Your task to perform on an android device: What's the weather going to be tomorrow? Image 0: 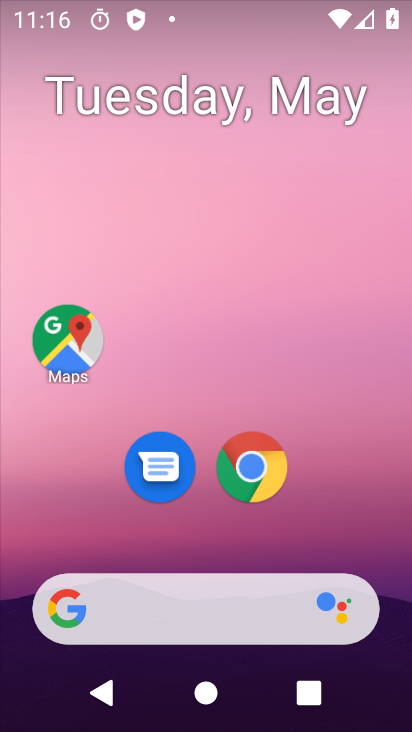
Step 0: drag from (405, 652) to (293, 40)
Your task to perform on an android device: What's the weather going to be tomorrow? Image 1: 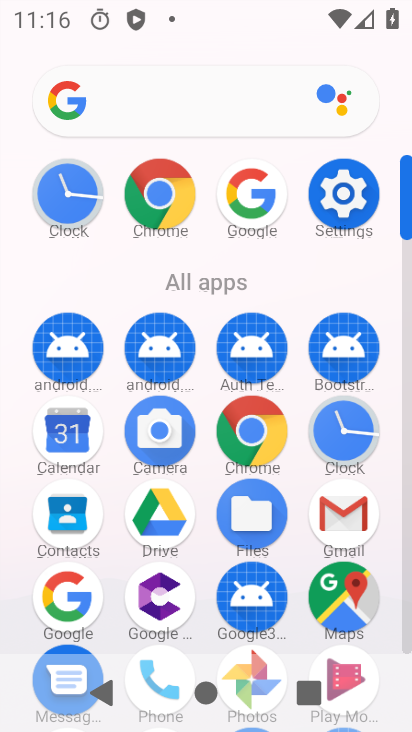
Step 1: drag from (9, 603) to (14, 285)
Your task to perform on an android device: What's the weather going to be tomorrow? Image 2: 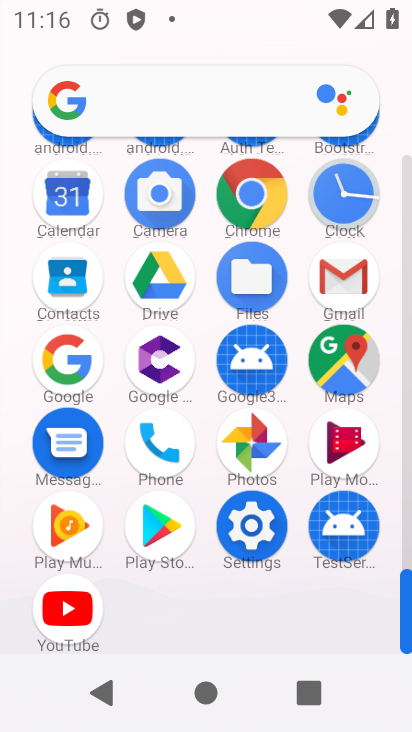
Step 2: click (255, 183)
Your task to perform on an android device: What's the weather going to be tomorrow? Image 3: 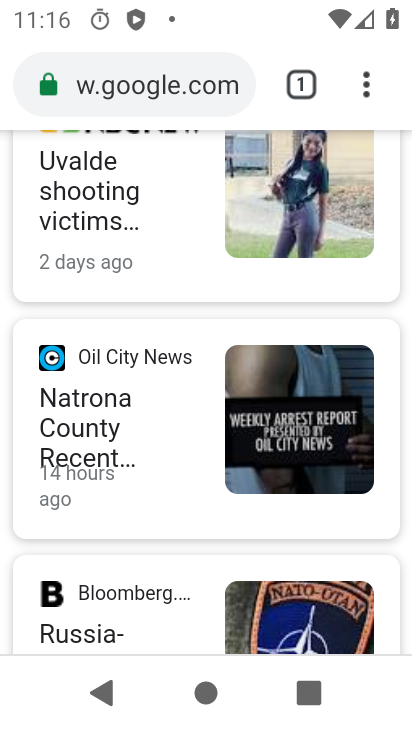
Step 3: click (164, 68)
Your task to perform on an android device: What's the weather going to be tomorrow? Image 4: 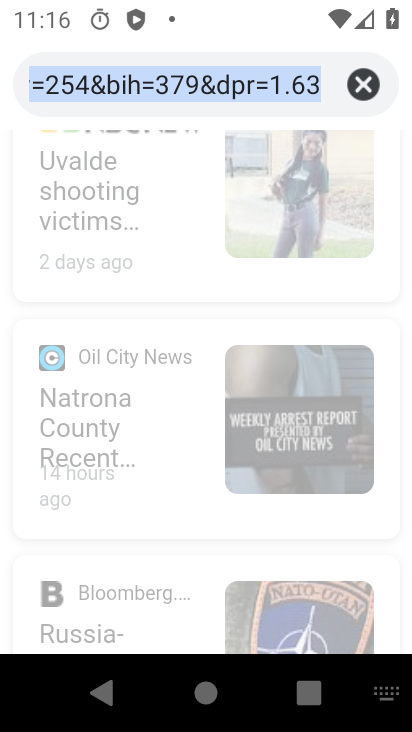
Step 4: click (363, 72)
Your task to perform on an android device: What's the weather going to be tomorrow? Image 5: 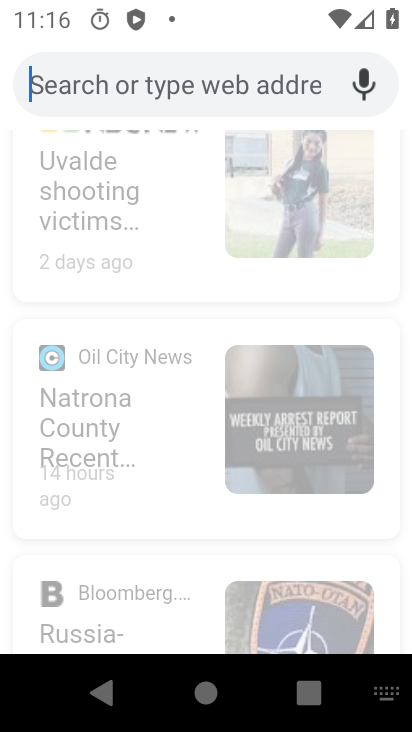
Step 5: type "What's the weather going to be tomorrow?"
Your task to perform on an android device: What's the weather going to be tomorrow? Image 6: 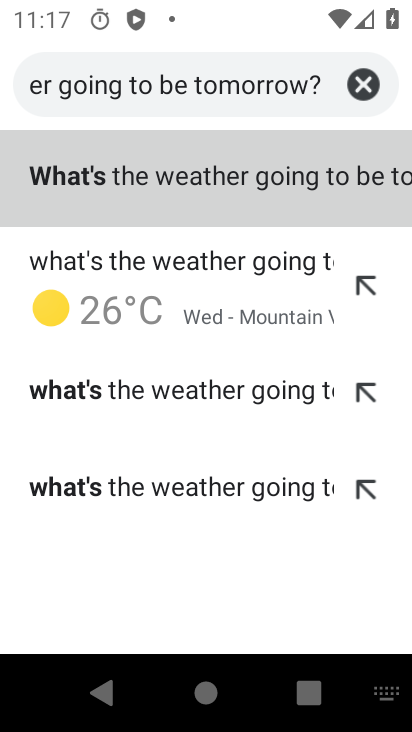
Step 6: click (33, 274)
Your task to perform on an android device: What's the weather going to be tomorrow? Image 7: 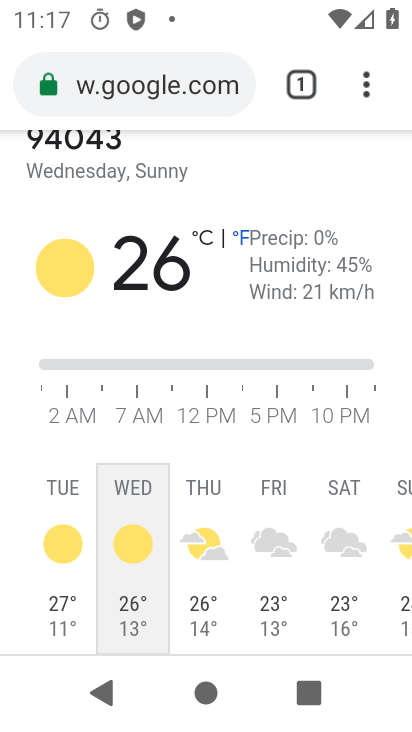
Step 7: task complete